Your task to perform on an android device: find which apps use the phone's location Image 0: 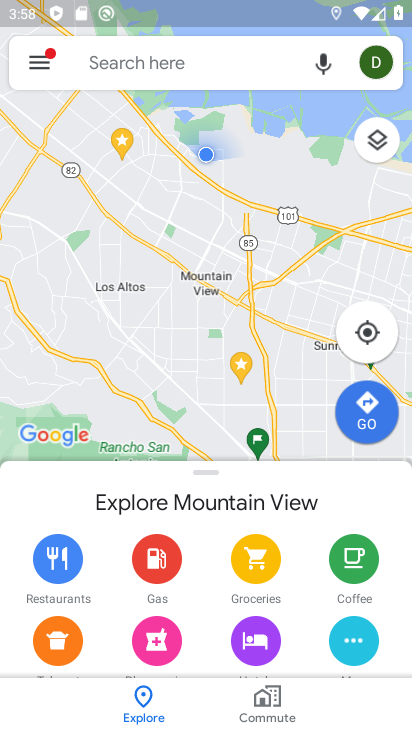
Step 0: press home button
Your task to perform on an android device: find which apps use the phone's location Image 1: 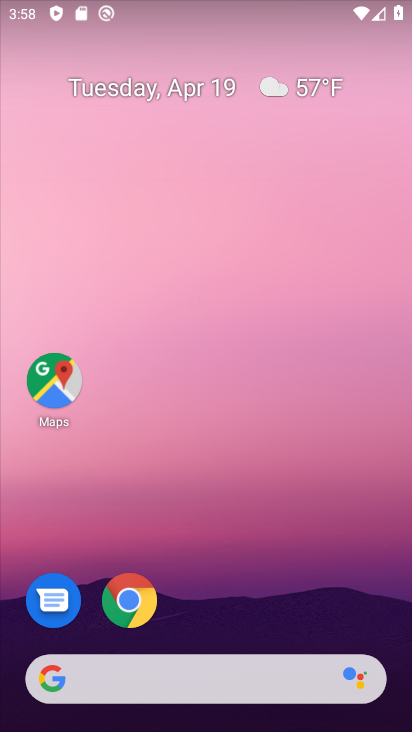
Step 1: drag from (308, 602) to (228, 126)
Your task to perform on an android device: find which apps use the phone's location Image 2: 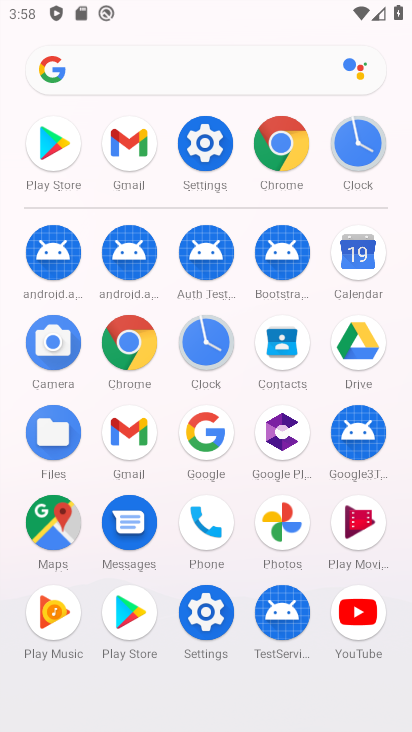
Step 2: click (193, 600)
Your task to perform on an android device: find which apps use the phone's location Image 3: 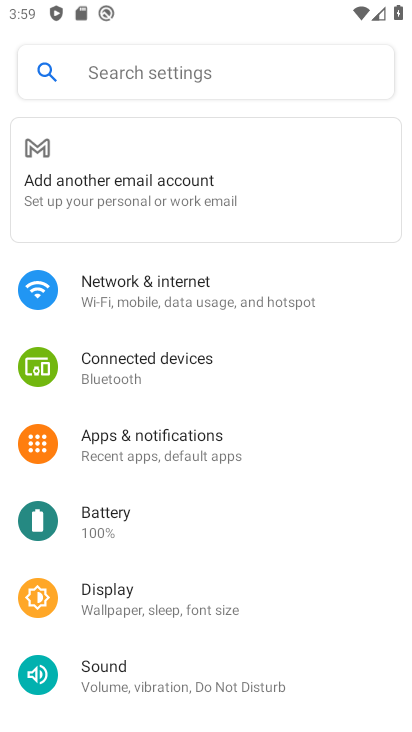
Step 3: drag from (234, 667) to (239, 289)
Your task to perform on an android device: find which apps use the phone's location Image 4: 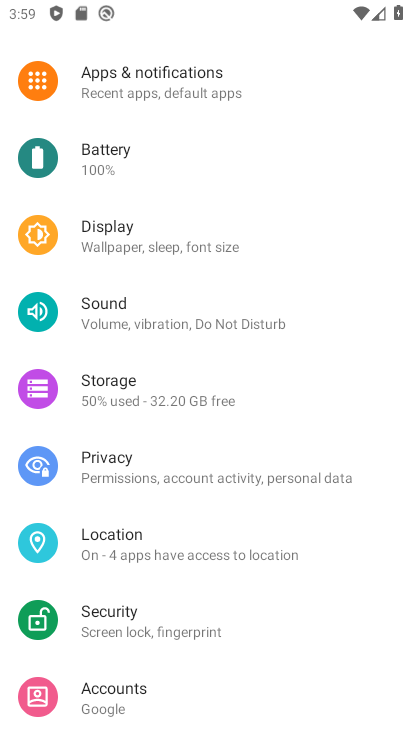
Step 4: click (252, 564)
Your task to perform on an android device: find which apps use the phone's location Image 5: 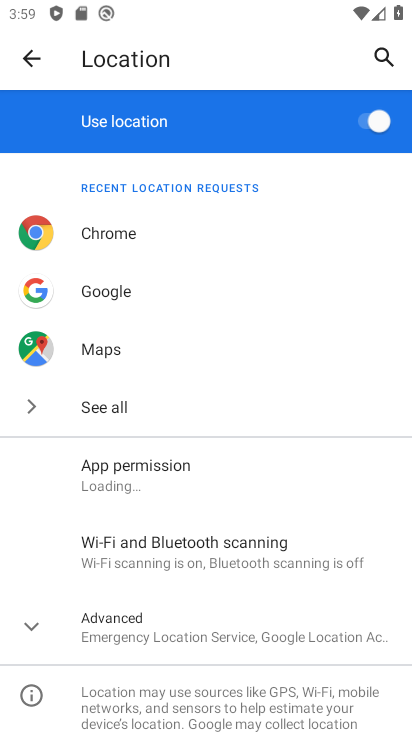
Step 5: drag from (271, 587) to (214, 240)
Your task to perform on an android device: find which apps use the phone's location Image 6: 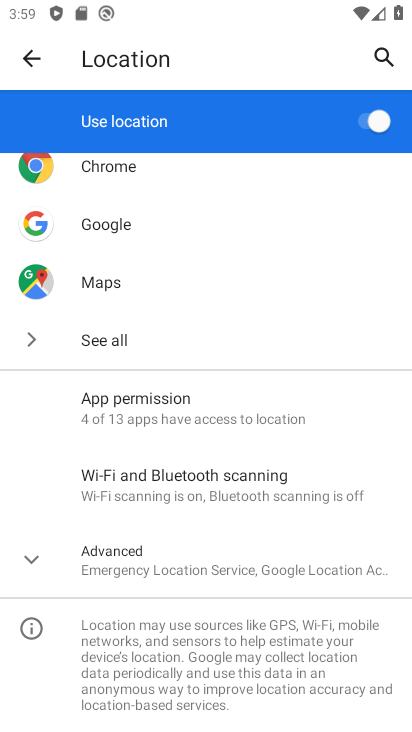
Step 6: drag from (182, 557) to (198, 673)
Your task to perform on an android device: find which apps use the phone's location Image 7: 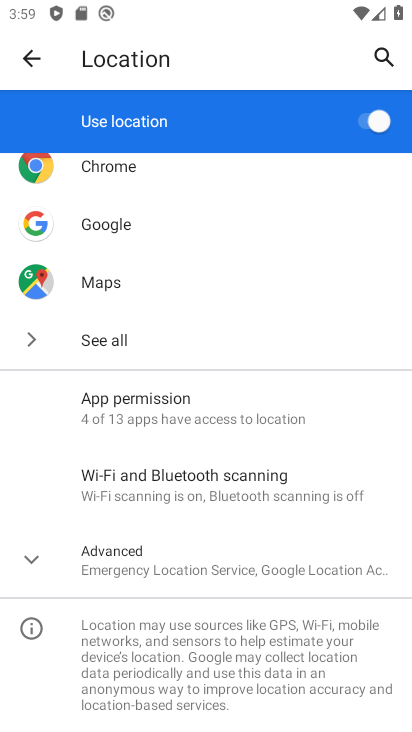
Step 7: click (162, 416)
Your task to perform on an android device: find which apps use the phone's location Image 8: 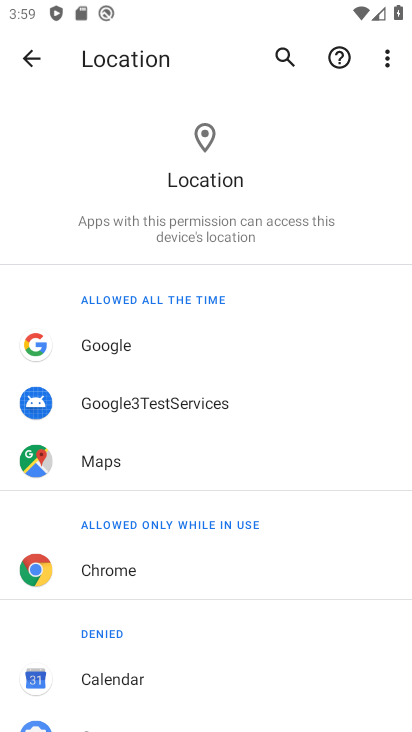
Step 8: task complete